Your task to perform on an android device: find snoozed emails in the gmail app Image 0: 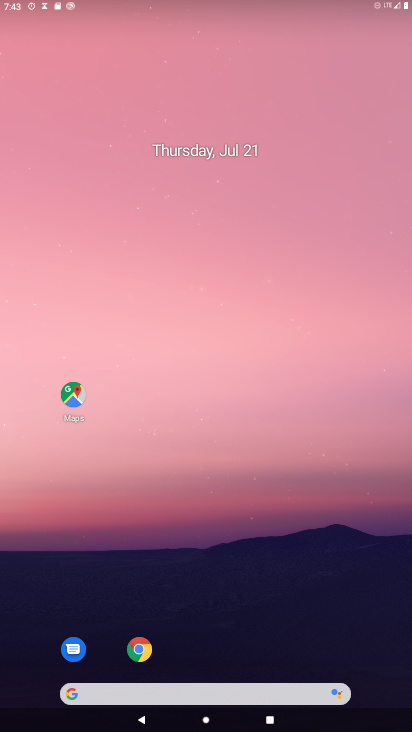
Step 0: drag from (356, 630) to (190, 62)
Your task to perform on an android device: find snoozed emails in the gmail app Image 1: 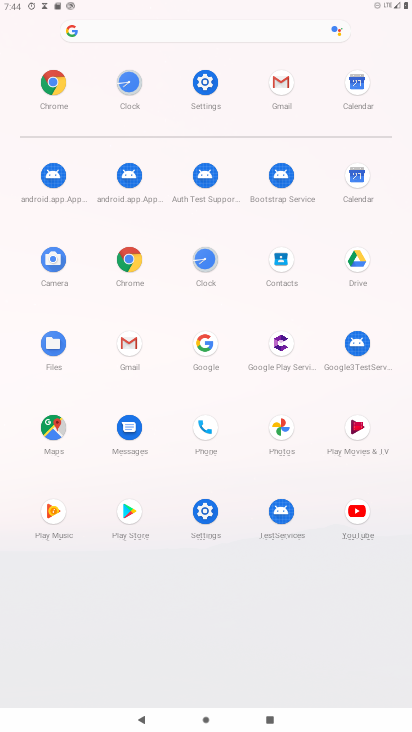
Step 1: click (117, 341)
Your task to perform on an android device: find snoozed emails in the gmail app Image 2: 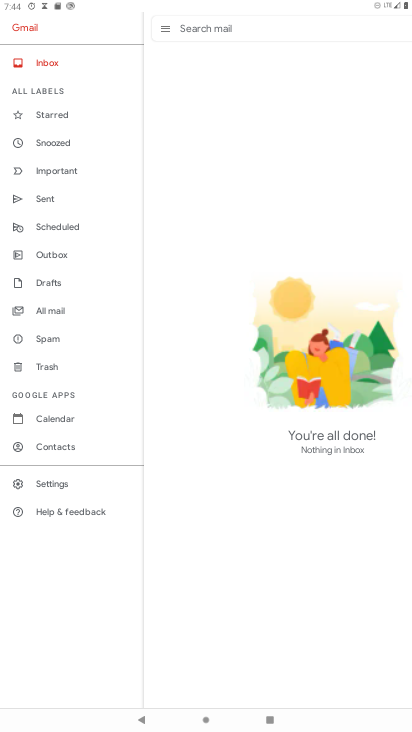
Step 2: click (59, 142)
Your task to perform on an android device: find snoozed emails in the gmail app Image 3: 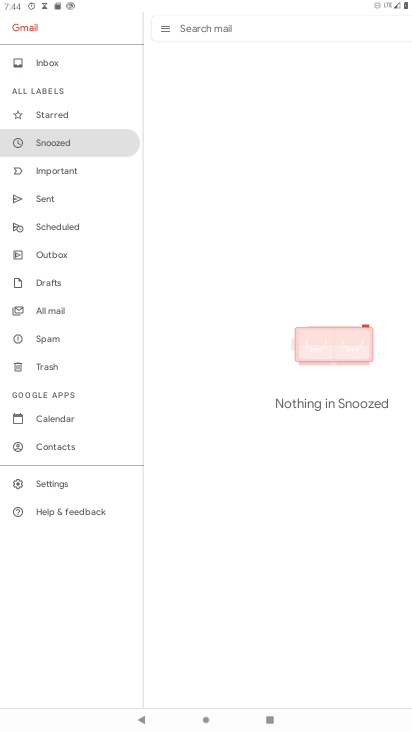
Step 3: task complete